Your task to perform on an android device: turn on notifications settings in the gmail app Image 0: 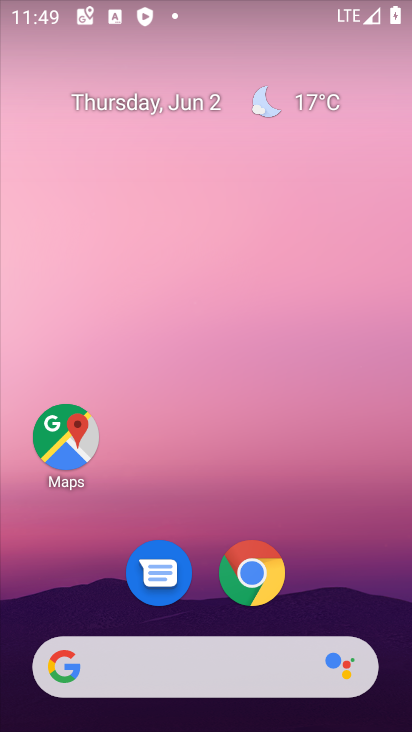
Step 0: drag from (321, 560) to (274, 30)
Your task to perform on an android device: turn on notifications settings in the gmail app Image 1: 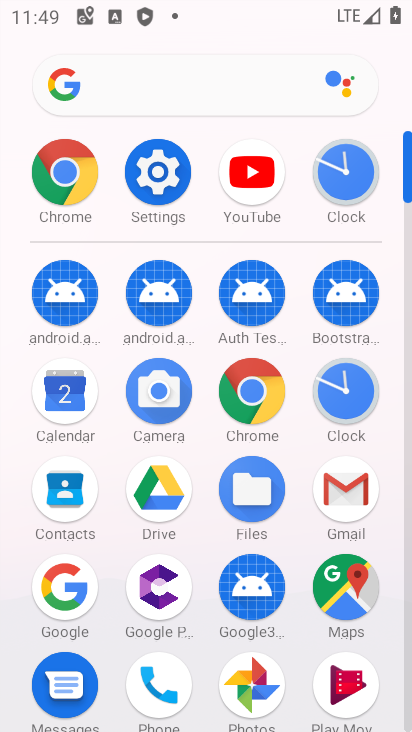
Step 1: click (328, 485)
Your task to perform on an android device: turn on notifications settings in the gmail app Image 2: 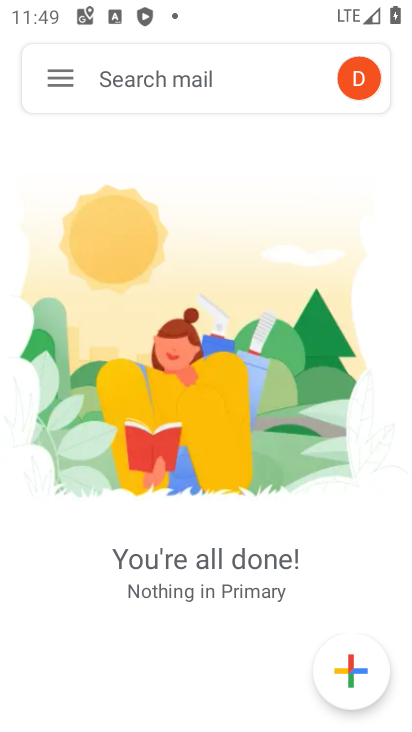
Step 2: click (62, 68)
Your task to perform on an android device: turn on notifications settings in the gmail app Image 3: 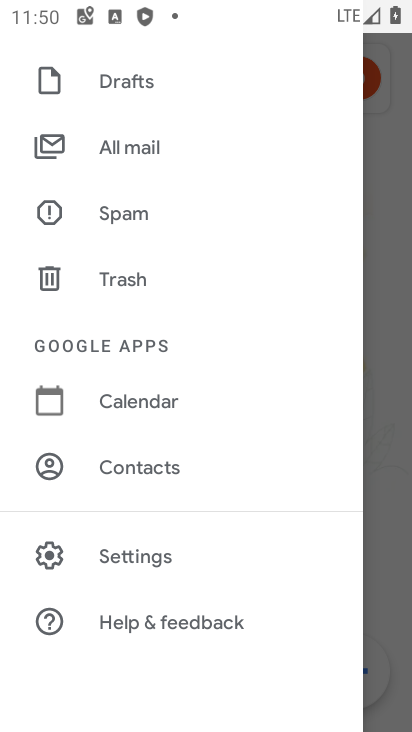
Step 3: drag from (171, 165) to (156, 610)
Your task to perform on an android device: turn on notifications settings in the gmail app Image 4: 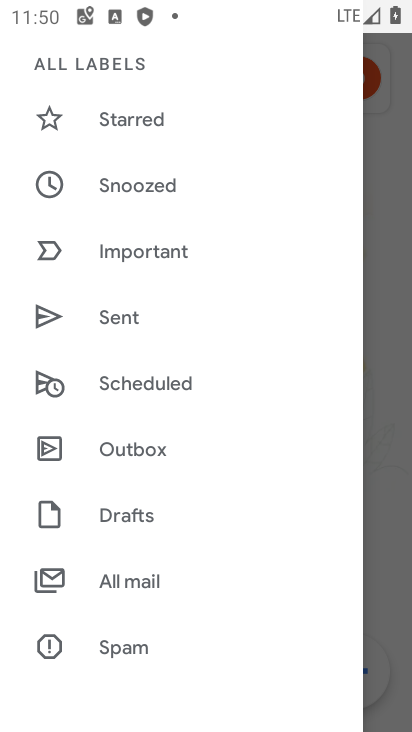
Step 4: drag from (265, 82) to (178, 560)
Your task to perform on an android device: turn on notifications settings in the gmail app Image 5: 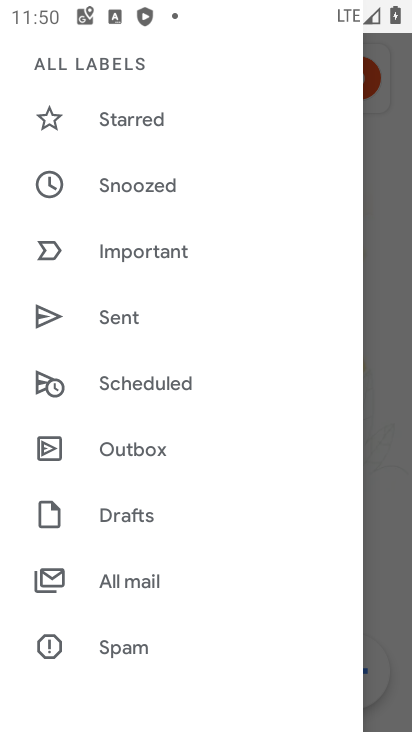
Step 5: drag from (155, 119) to (141, 586)
Your task to perform on an android device: turn on notifications settings in the gmail app Image 6: 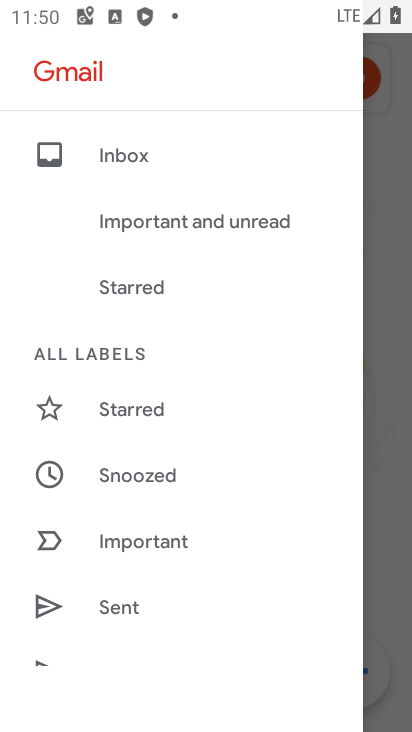
Step 6: drag from (153, 581) to (196, 59)
Your task to perform on an android device: turn on notifications settings in the gmail app Image 7: 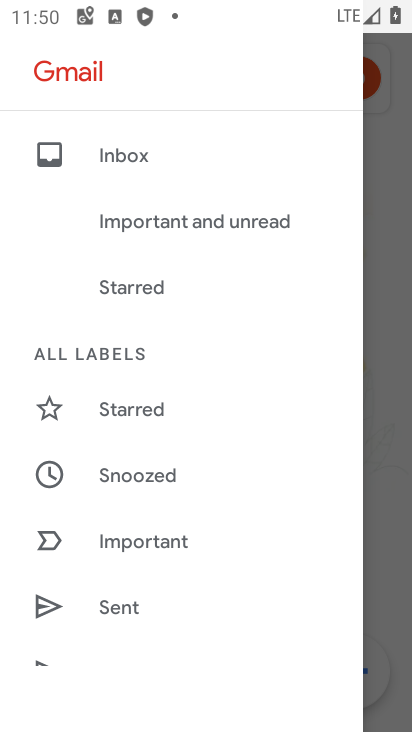
Step 7: click (241, 87)
Your task to perform on an android device: turn on notifications settings in the gmail app Image 8: 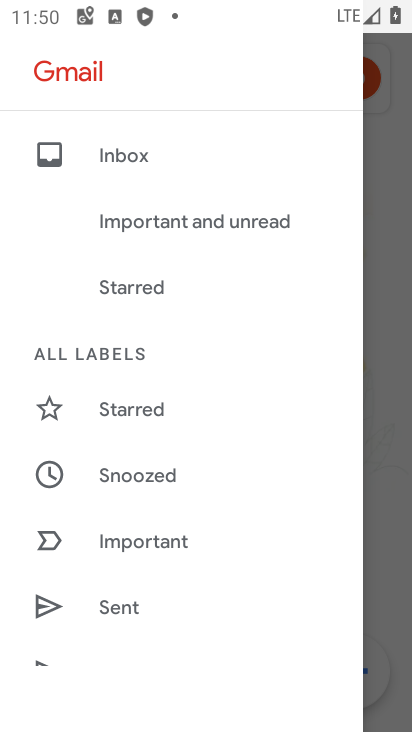
Step 8: drag from (178, 562) to (181, 193)
Your task to perform on an android device: turn on notifications settings in the gmail app Image 9: 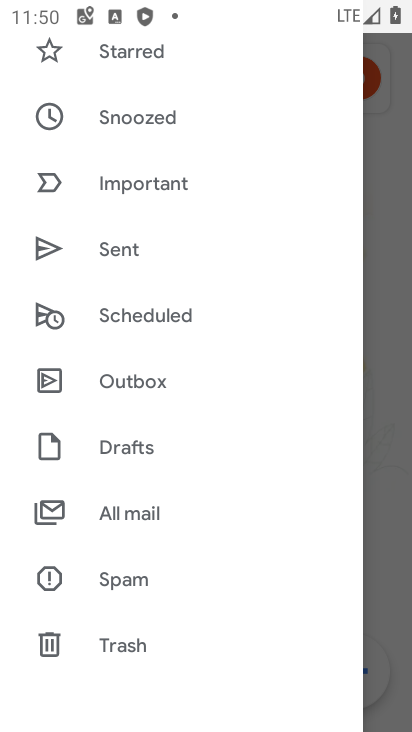
Step 9: drag from (177, 605) to (237, 109)
Your task to perform on an android device: turn on notifications settings in the gmail app Image 10: 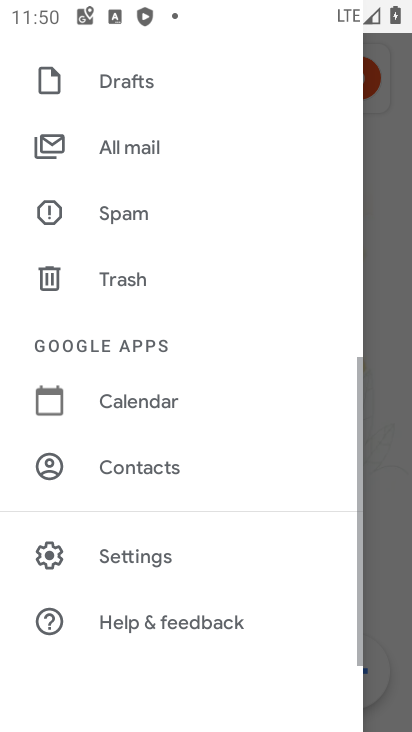
Step 10: click (132, 557)
Your task to perform on an android device: turn on notifications settings in the gmail app Image 11: 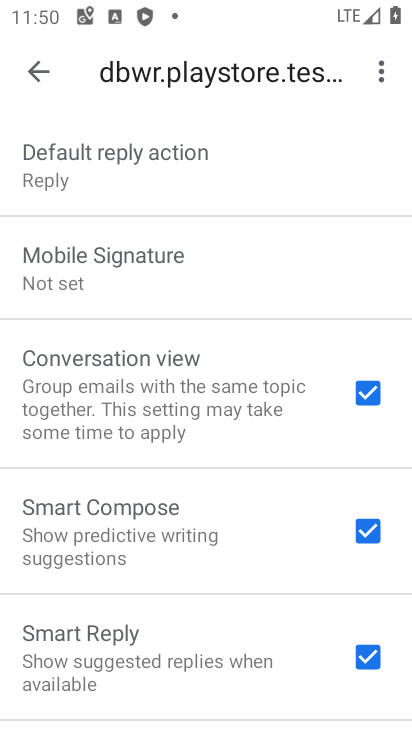
Step 11: drag from (220, 219) to (162, 639)
Your task to perform on an android device: turn on notifications settings in the gmail app Image 12: 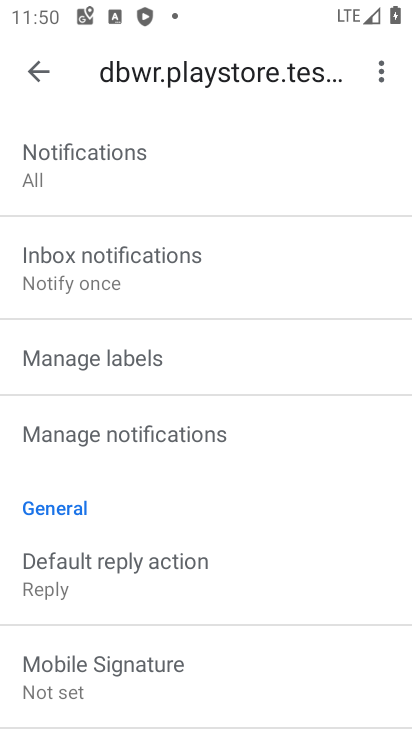
Step 12: click (119, 191)
Your task to perform on an android device: turn on notifications settings in the gmail app Image 13: 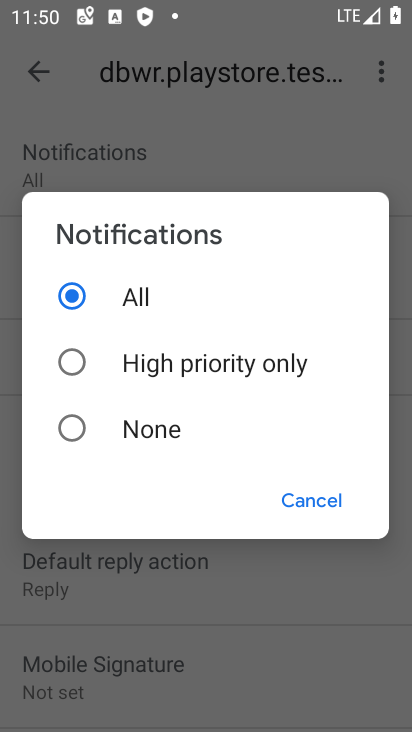
Step 13: task complete